Your task to perform on an android device: Empty the shopping cart on target.com. Search for usb-a to usb-b on target.com, select the first entry, add it to the cart, then select checkout. Image 0: 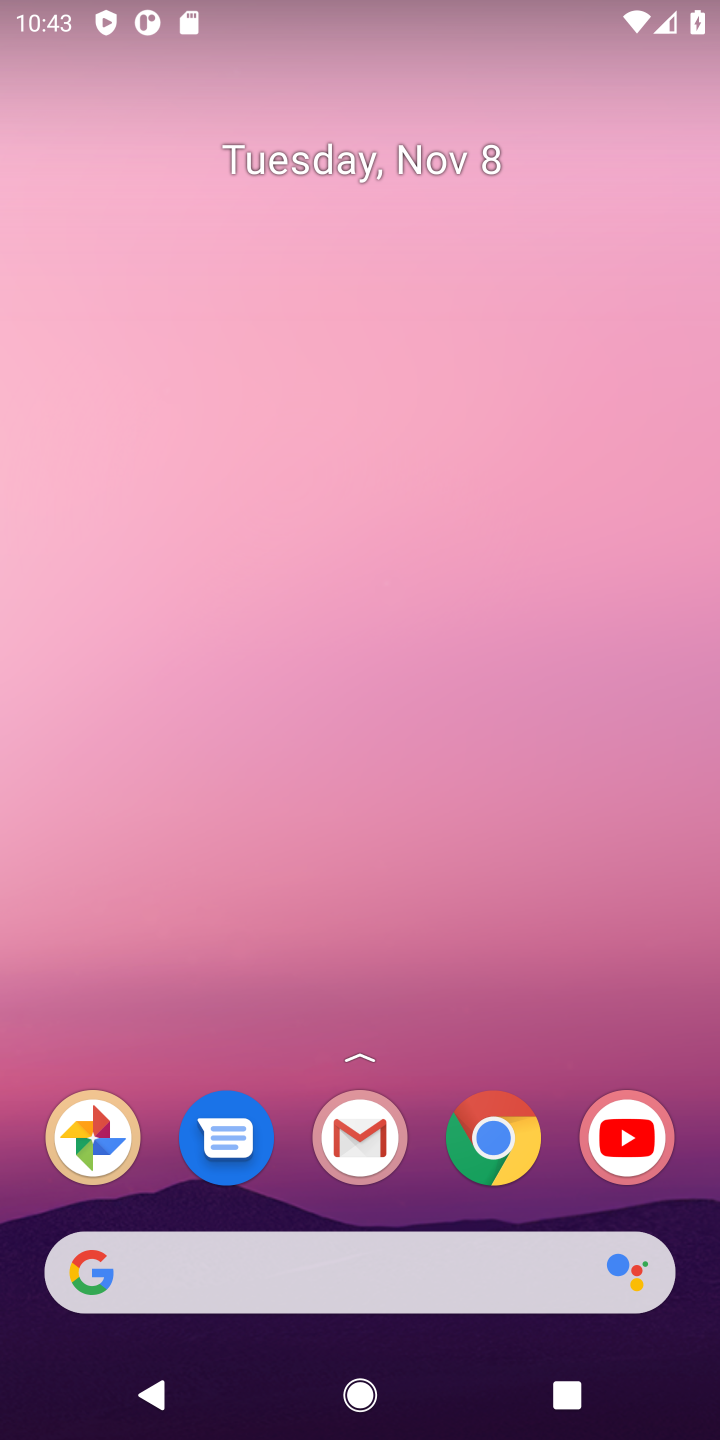
Step 0: press home button
Your task to perform on an android device: Empty the shopping cart on target.com. Search for usb-a to usb-b on target.com, select the first entry, add it to the cart, then select checkout. Image 1: 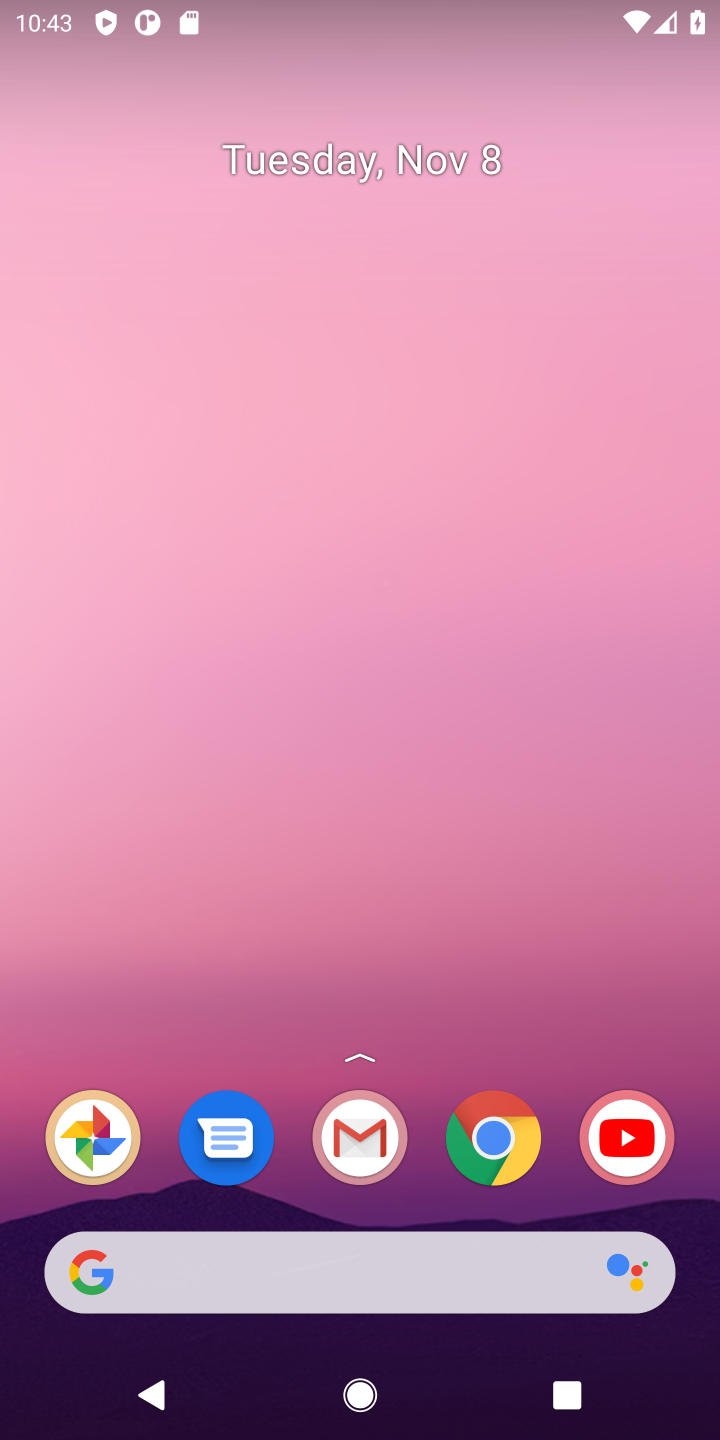
Step 1: click (496, 1141)
Your task to perform on an android device: Empty the shopping cart on target.com. Search for usb-a to usb-b on target.com, select the first entry, add it to the cart, then select checkout. Image 2: 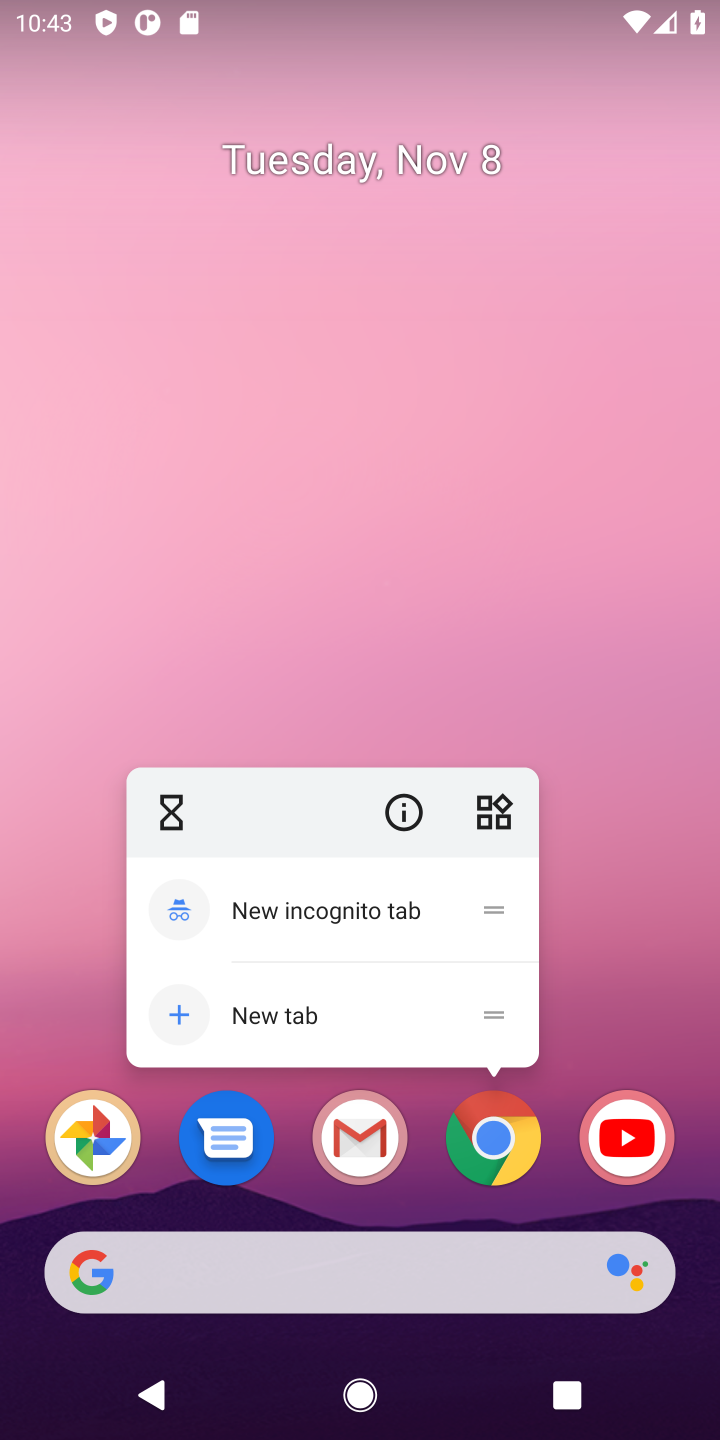
Step 2: click (496, 1141)
Your task to perform on an android device: Empty the shopping cart on target.com. Search for usb-a to usb-b on target.com, select the first entry, add it to the cart, then select checkout. Image 3: 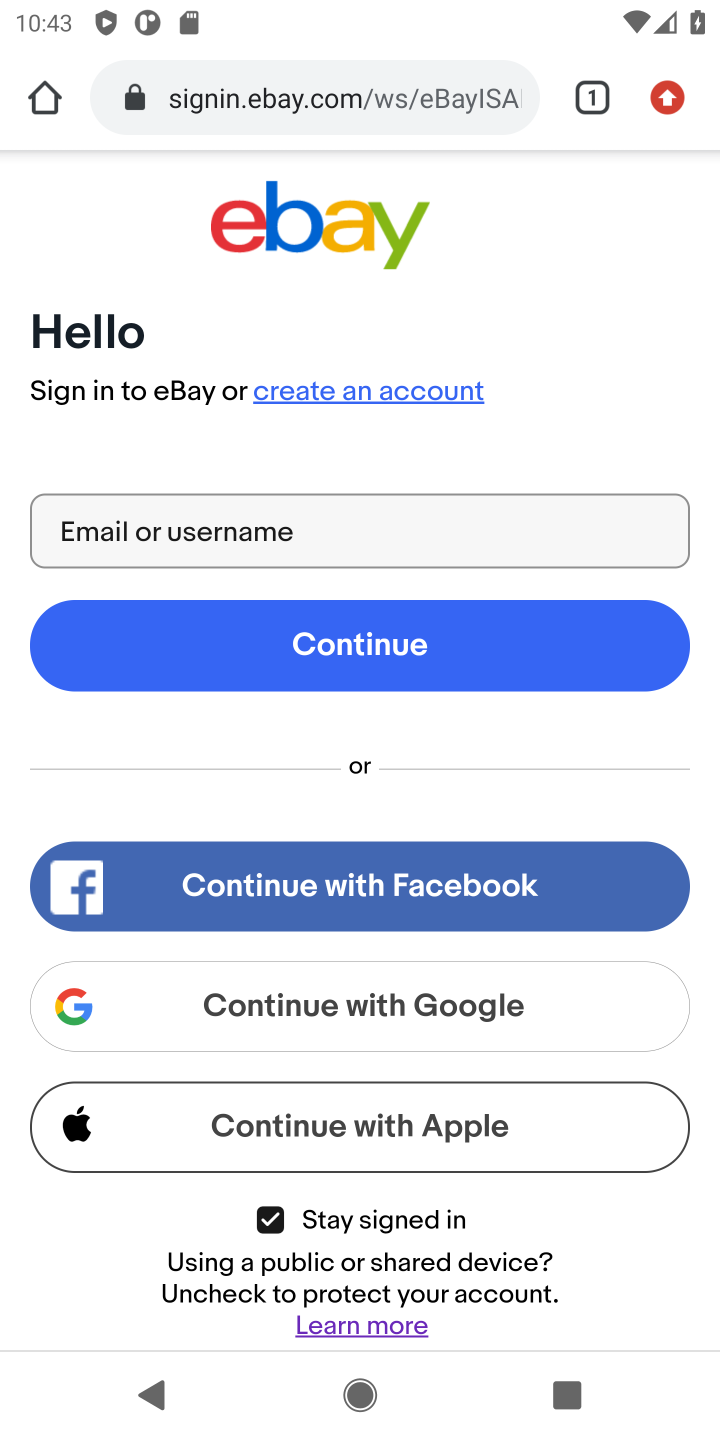
Step 3: click (407, 105)
Your task to perform on an android device: Empty the shopping cart on target.com. Search for usb-a to usb-b on target.com, select the first entry, add it to the cart, then select checkout. Image 4: 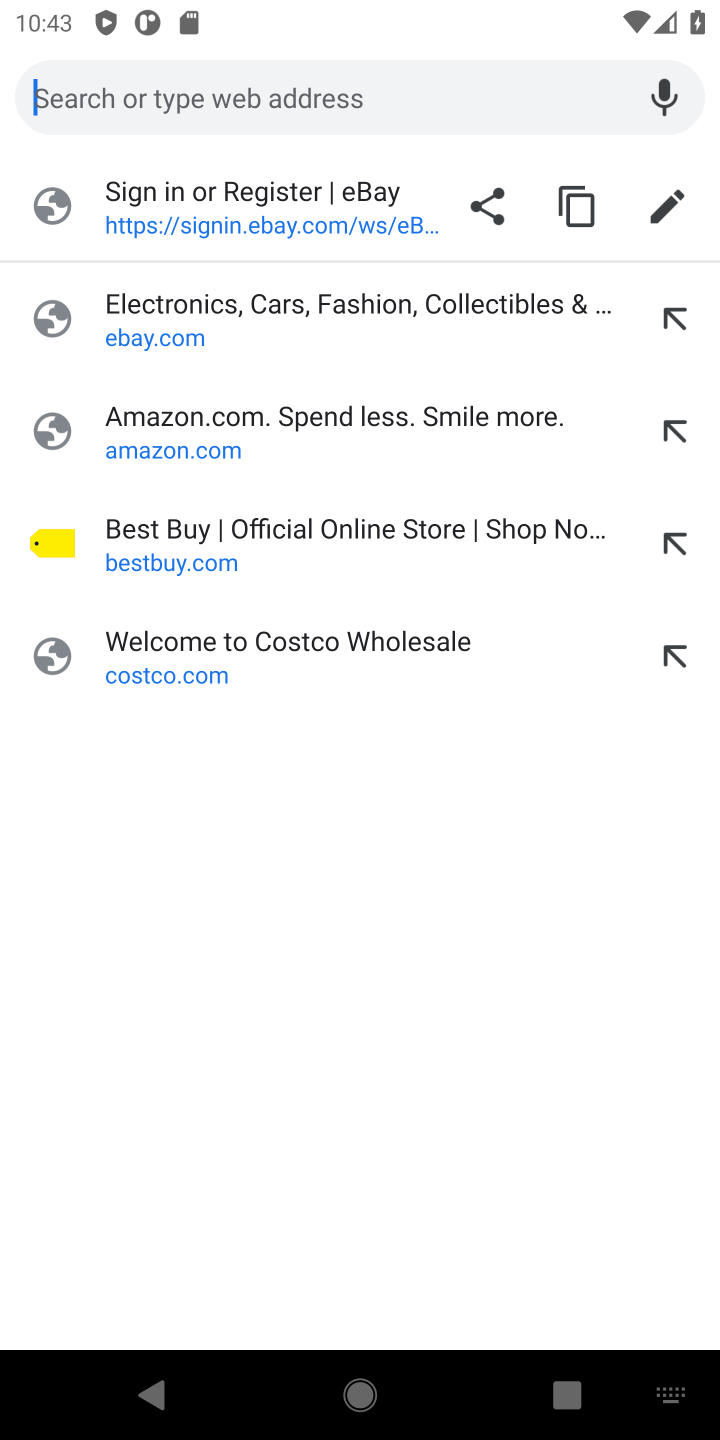
Step 4: type "target.com"
Your task to perform on an android device: Empty the shopping cart on target.com. Search for usb-a to usb-b on target.com, select the first entry, add it to the cart, then select checkout. Image 5: 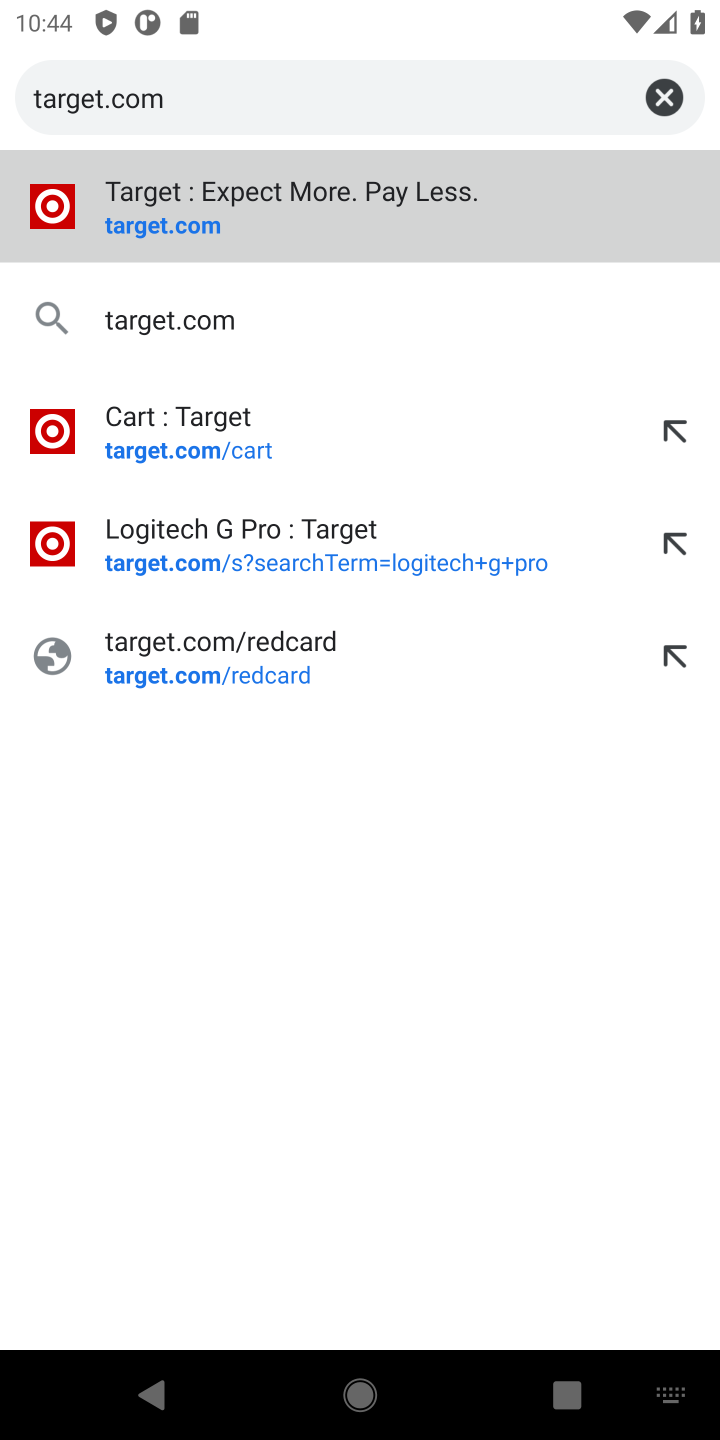
Step 5: press enter
Your task to perform on an android device: Empty the shopping cart on target.com. Search for usb-a to usb-b on target.com, select the first entry, add it to the cart, then select checkout. Image 6: 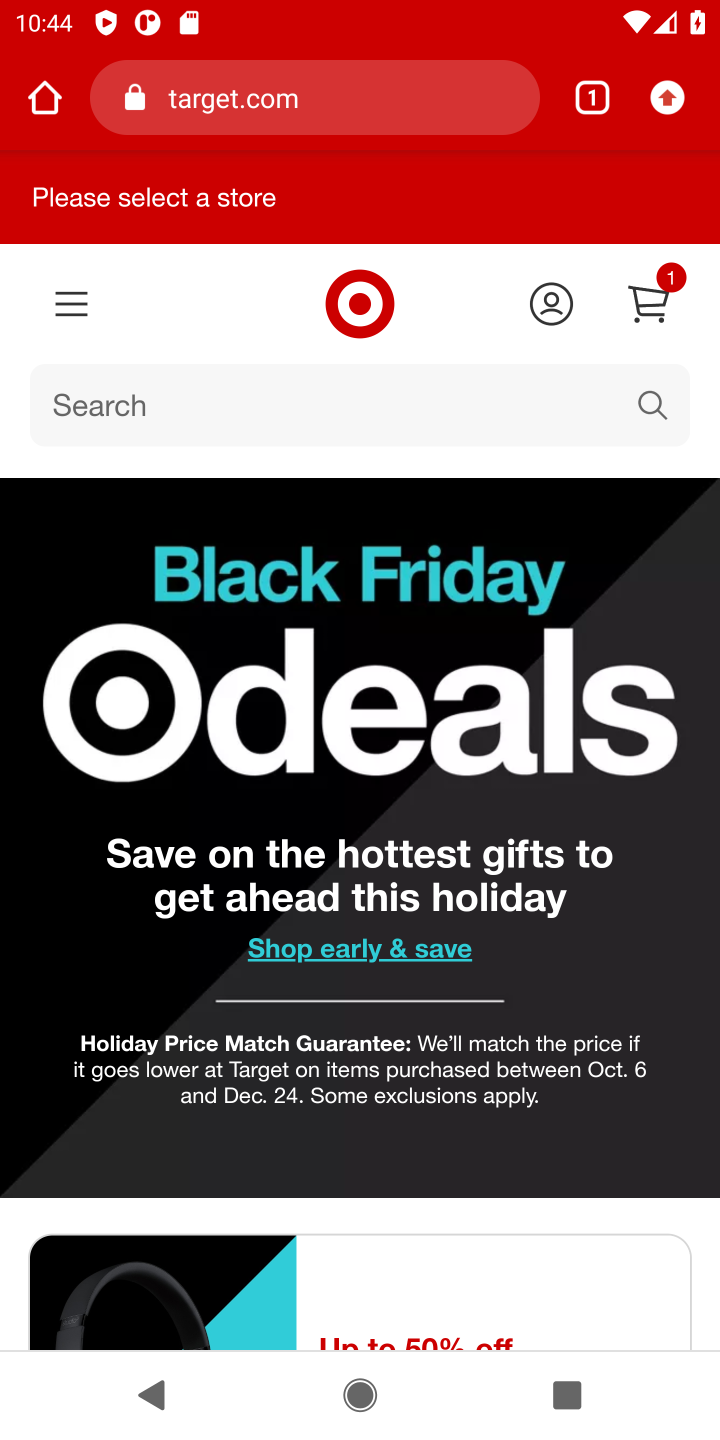
Step 6: click (657, 292)
Your task to perform on an android device: Empty the shopping cart on target.com. Search for usb-a to usb-b on target.com, select the first entry, add it to the cart, then select checkout. Image 7: 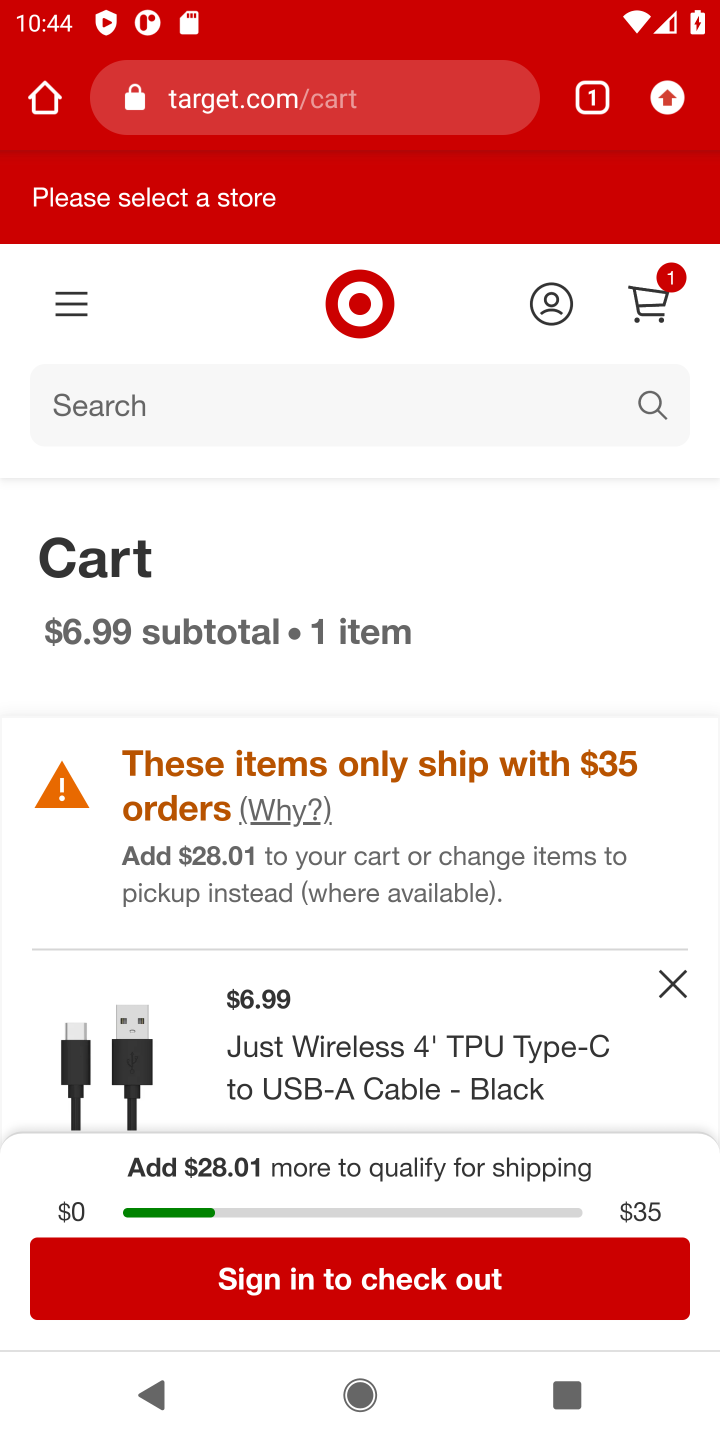
Step 7: drag from (325, 1076) to (485, 501)
Your task to perform on an android device: Empty the shopping cart on target.com. Search for usb-a to usb-b on target.com, select the first entry, add it to the cart, then select checkout. Image 8: 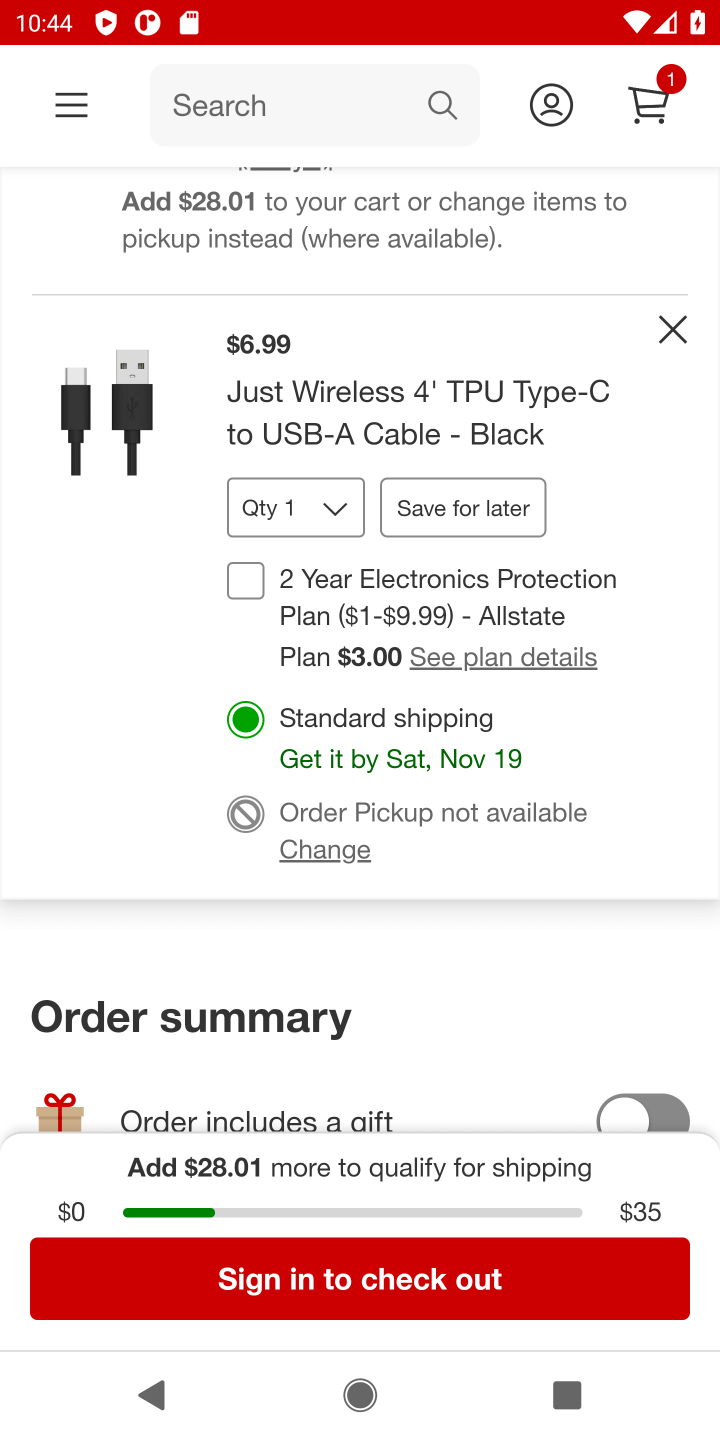
Step 8: click (671, 408)
Your task to perform on an android device: Empty the shopping cart on target.com. Search for usb-a to usb-b on target.com, select the first entry, add it to the cart, then select checkout. Image 9: 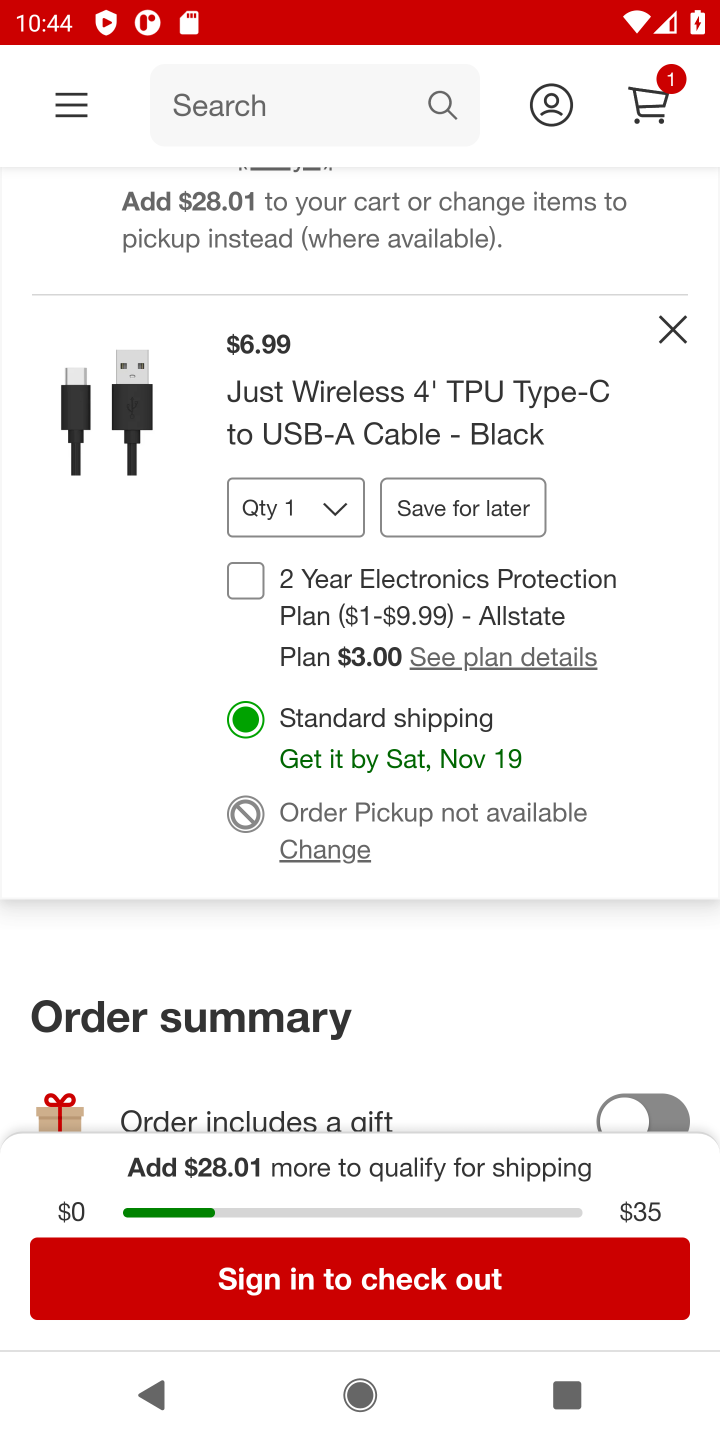
Step 9: click (667, 314)
Your task to perform on an android device: Empty the shopping cart on target.com. Search for usb-a to usb-b on target.com, select the first entry, add it to the cart, then select checkout. Image 10: 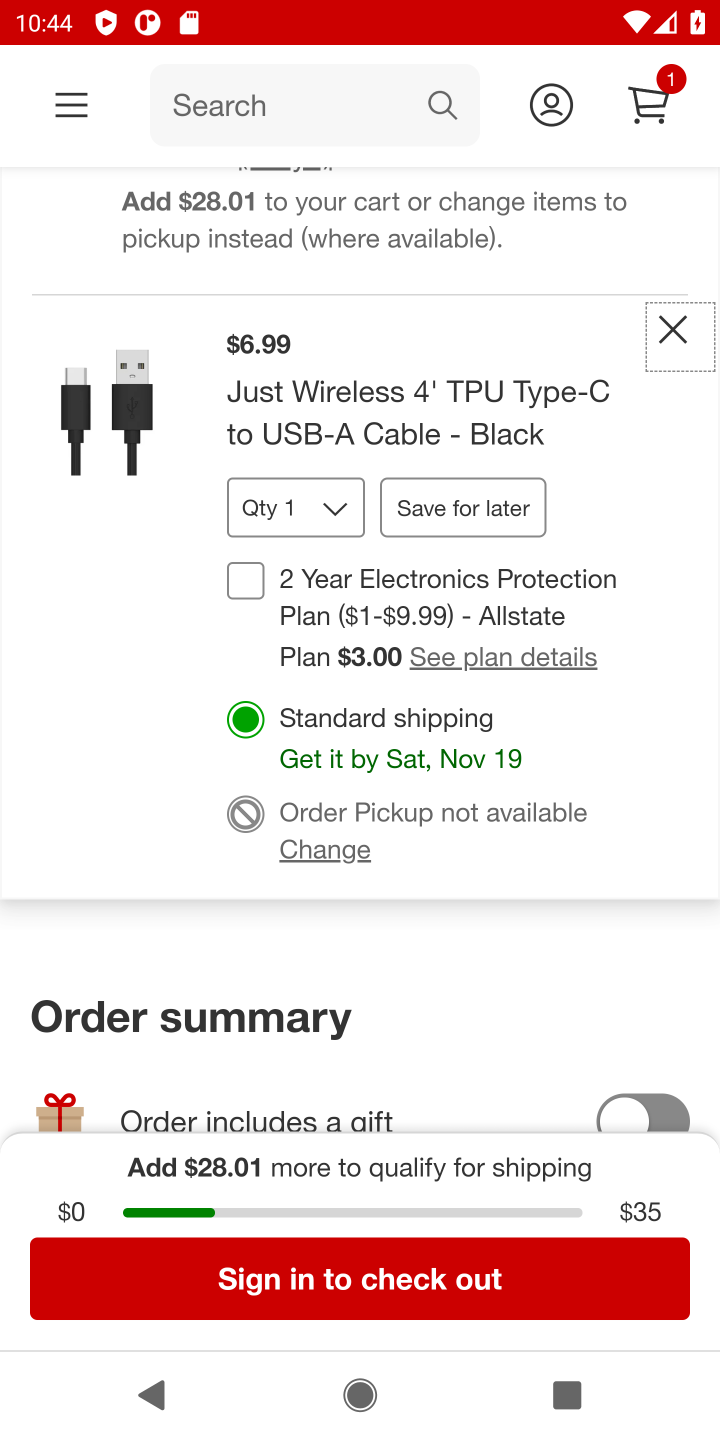
Step 10: click (669, 325)
Your task to perform on an android device: Empty the shopping cart on target.com. Search for usb-a to usb-b on target.com, select the first entry, add it to the cart, then select checkout. Image 11: 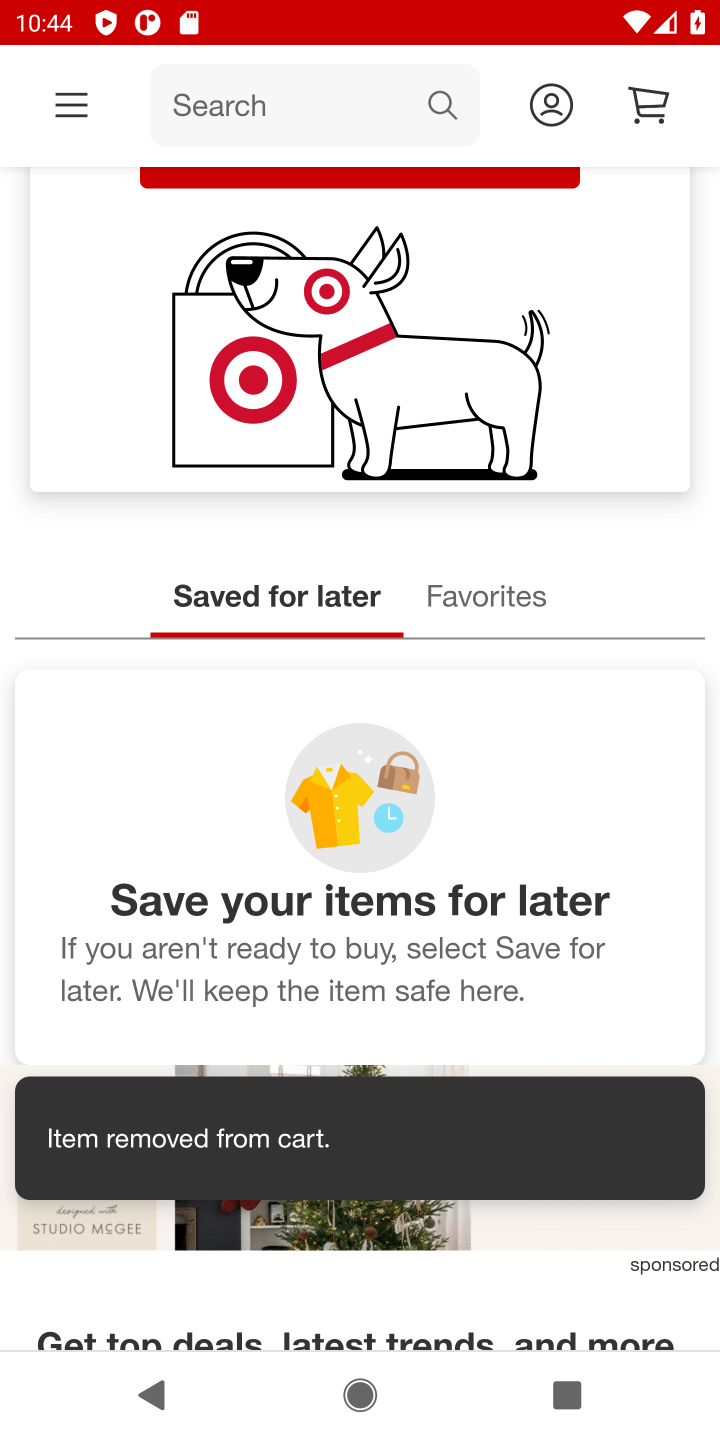
Step 11: drag from (647, 285) to (533, 1140)
Your task to perform on an android device: Empty the shopping cart on target.com. Search for usb-a to usb-b on target.com, select the first entry, add it to the cart, then select checkout. Image 12: 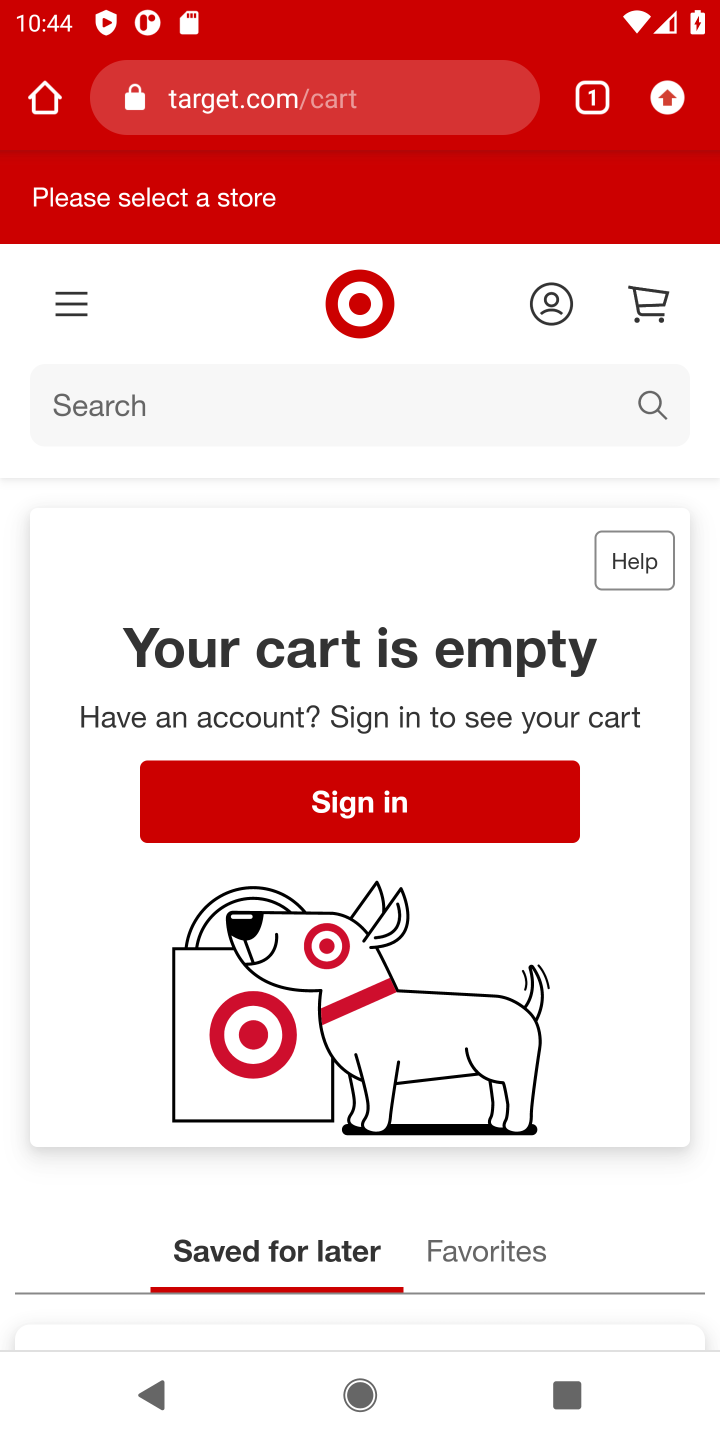
Step 12: click (172, 407)
Your task to perform on an android device: Empty the shopping cart on target.com. Search for usb-a to usb-b on target.com, select the first entry, add it to the cart, then select checkout. Image 13: 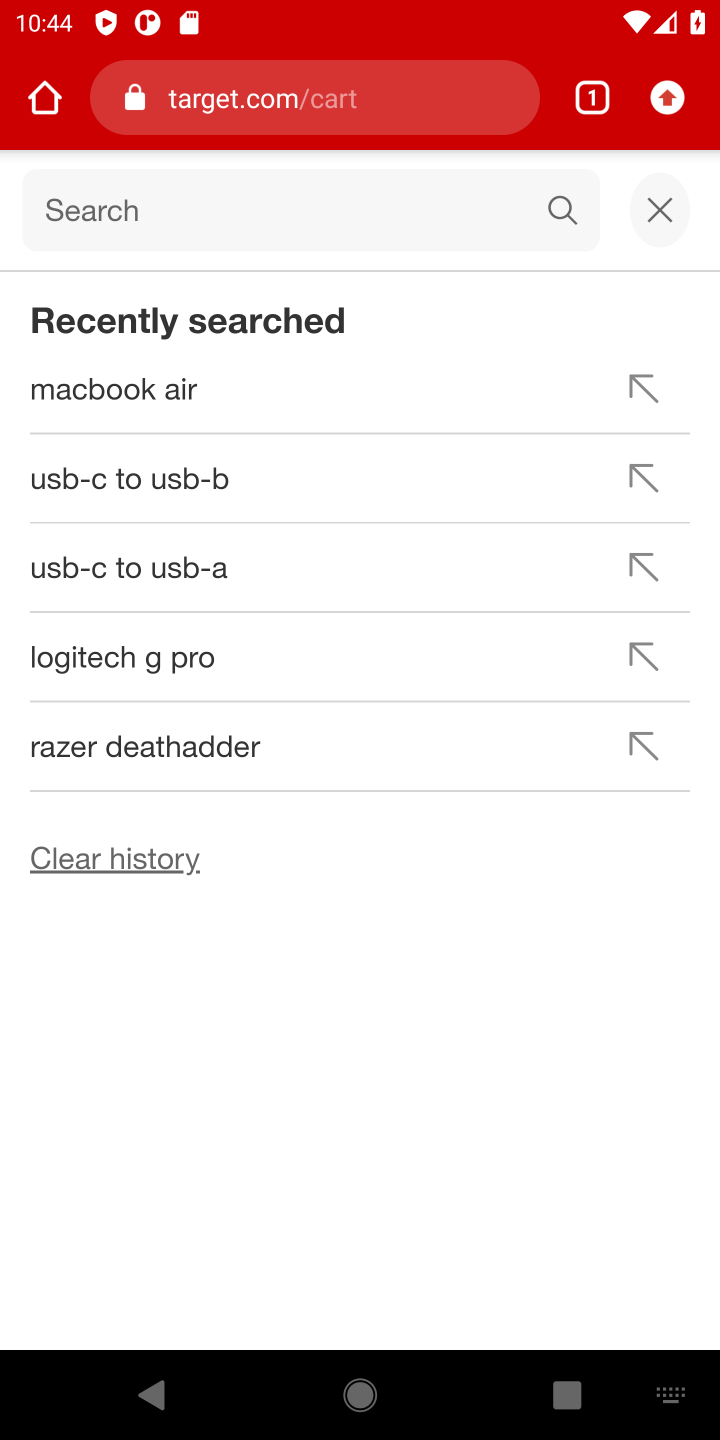
Step 13: click (210, 212)
Your task to perform on an android device: Empty the shopping cart on target.com. Search for usb-a to usb-b on target.com, select the first entry, add it to the cart, then select checkout. Image 14: 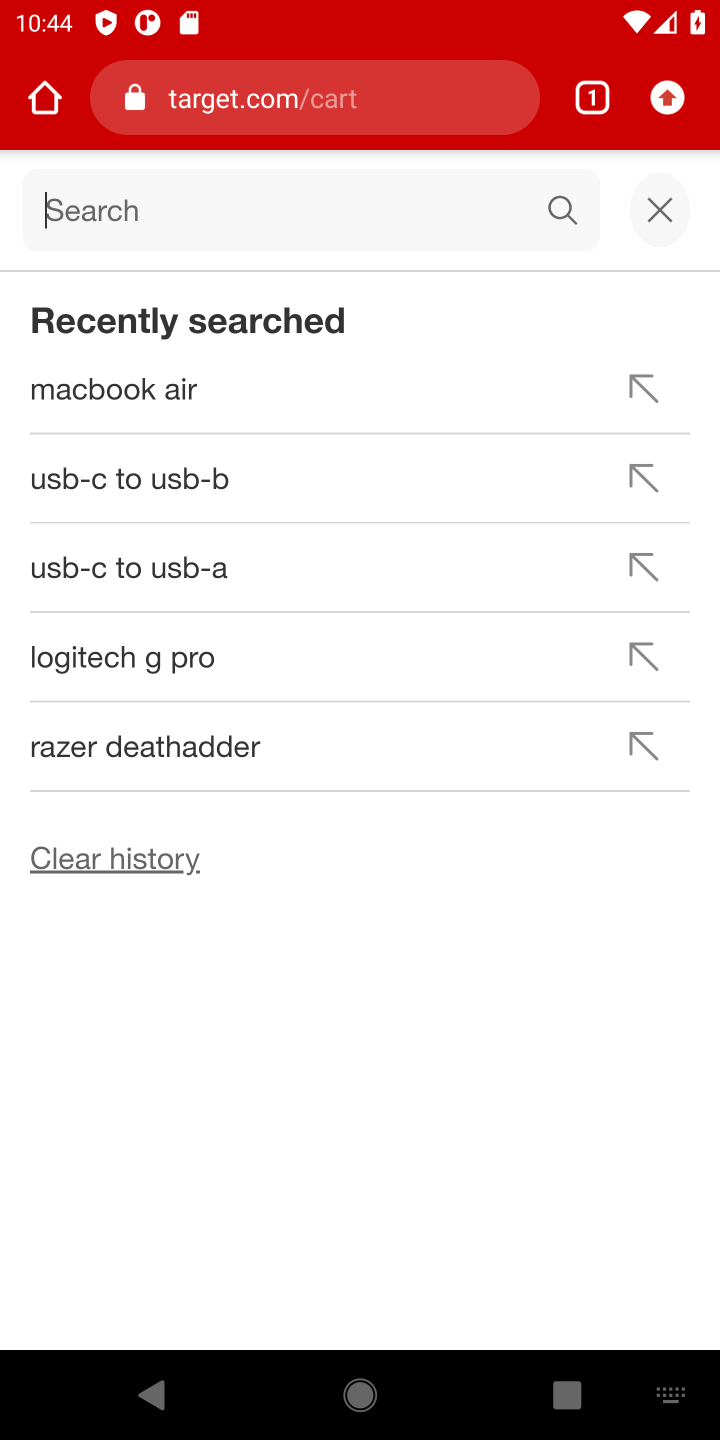
Step 14: type "usb-a to usb-b"
Your task to perform on an android device: Empty the shopping cart on target.com. Search for usb-a to usb-b on target.com, select the first entry, add it to the cart, then select checkout. Image 15: 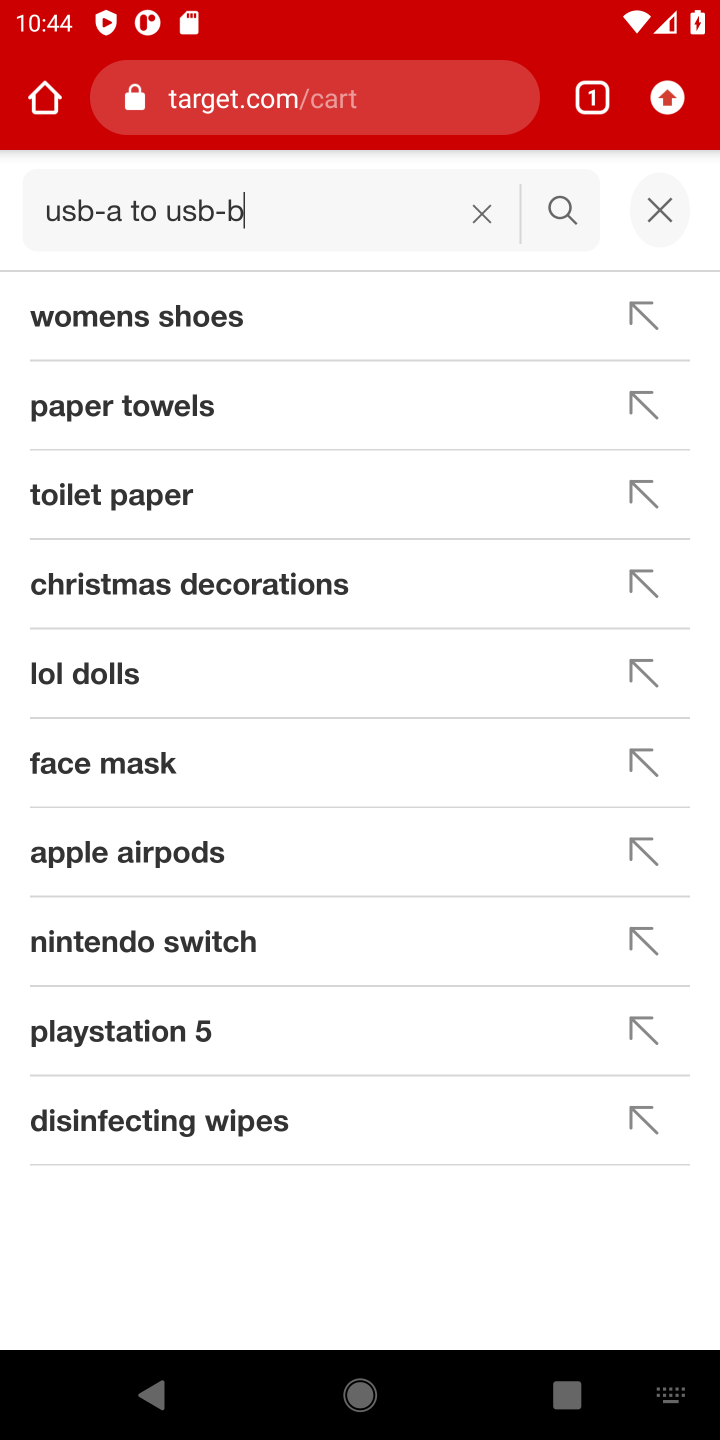
Step 15: press enter
Your task to perform on an android device: Empty the shopping cart on target.com. Search for usb-a to usb-b on target.com, select the first entry, add it to the cart, then select checkout. Image 16: 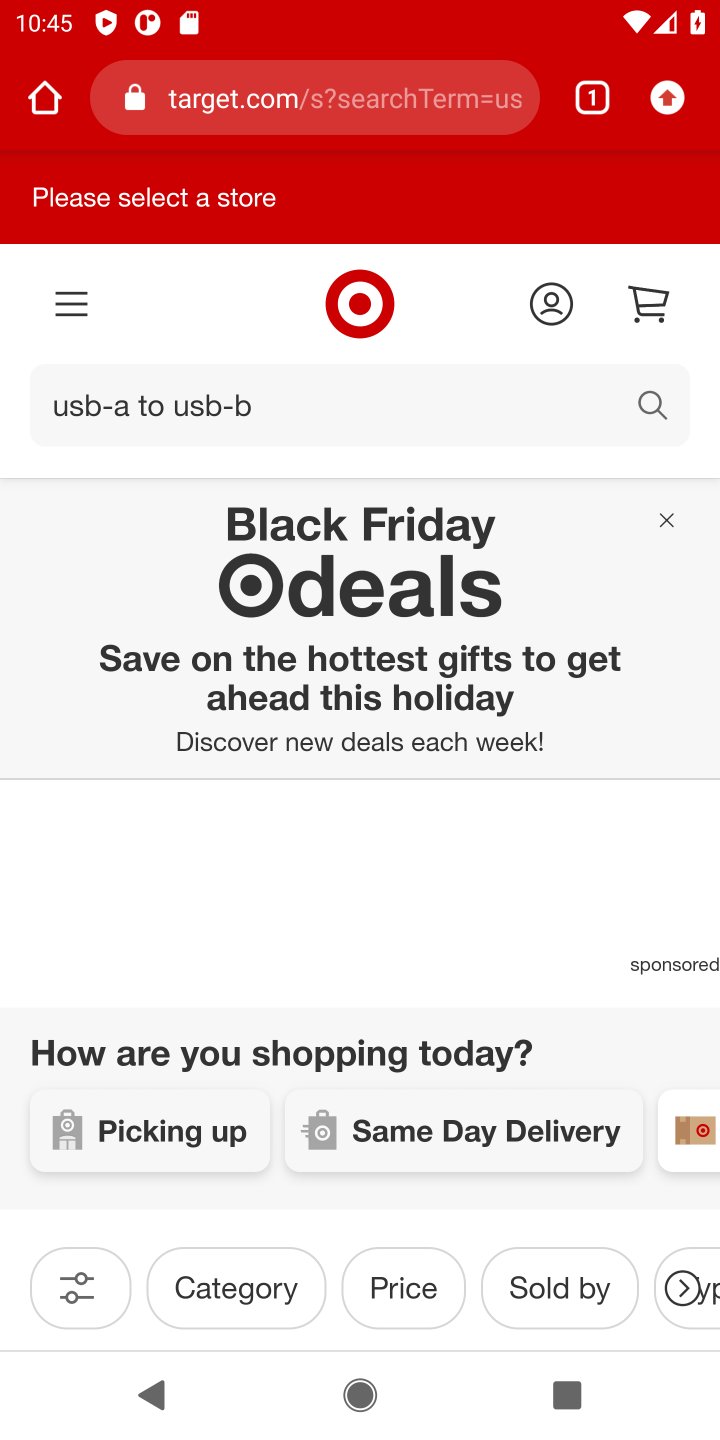
Step 16: drag from (335, 1133) to (532, 461)
Your task to perform on an android device: Empty the shopping cart on target.com. Search for usb-a to usb-b on target.com, select the first entry, add it to the cart, then select checkout. Image 17: 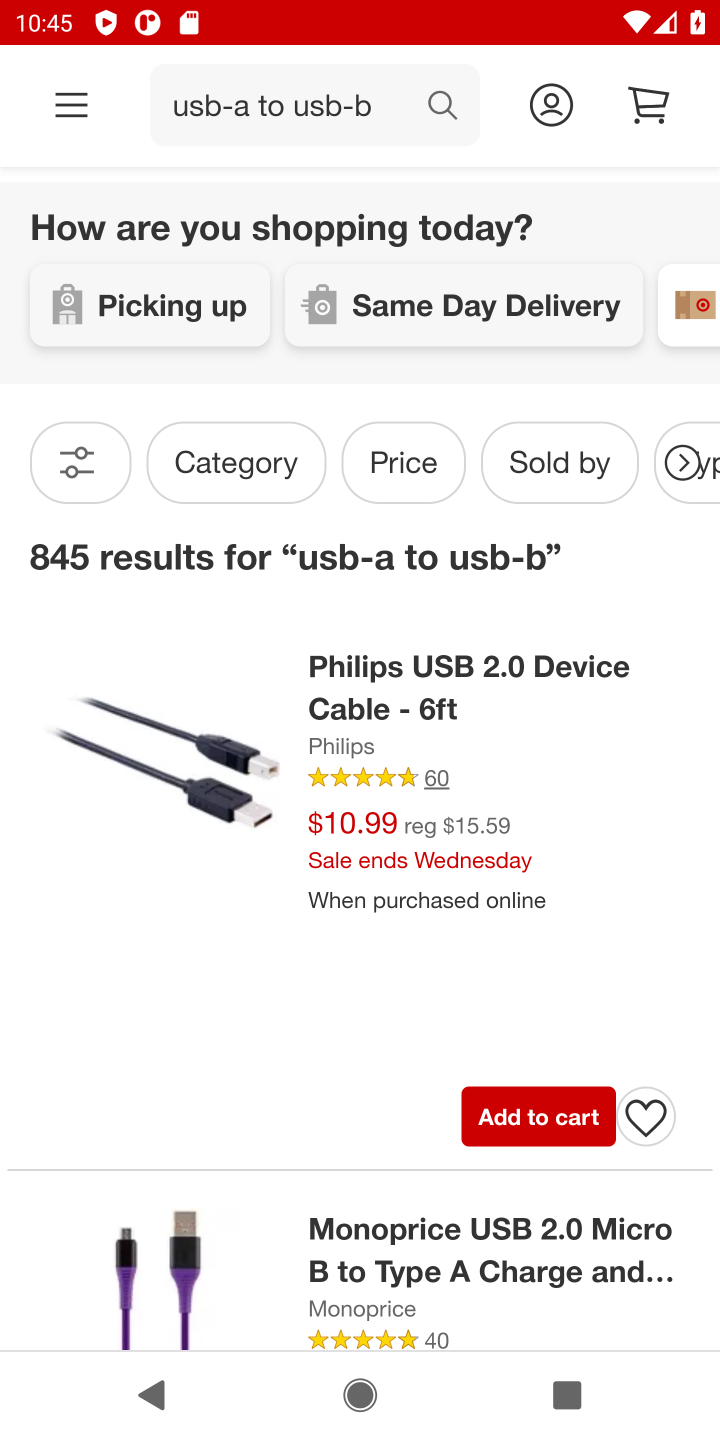
Step 17: drag from (437, 1282) to (575, 811)
Your task to perform on an android device: Empty the shopping cart on target.com. Search for usb-a to usb-b on target.com, select the first entry, add it to the cart, then select checkout. Image 18: 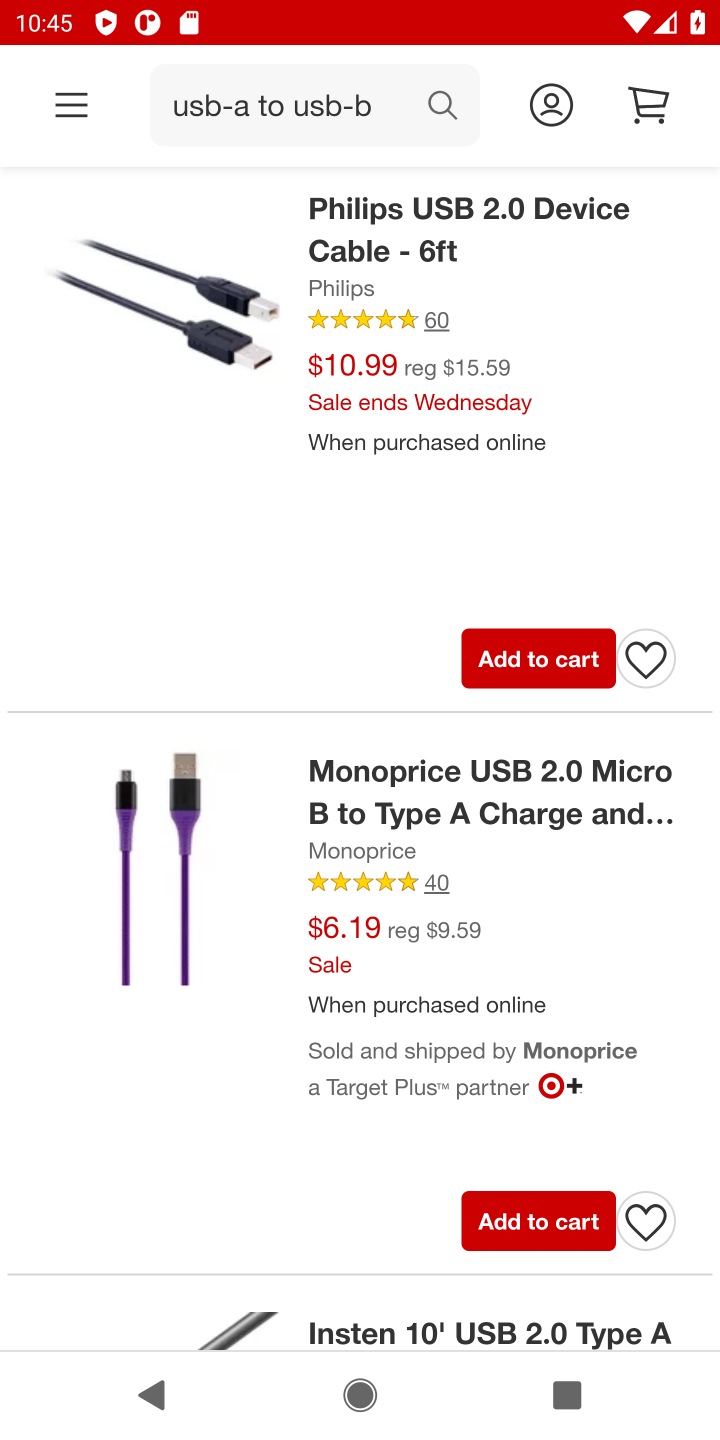
Step 18: drag from (405, 1269) to (495, 662)
Your task to perform on an android device: Empty the shopping cart on target.com. Search for usb-a to usb-b on target.com, select the first entry, add it to the cart, then select checkout. Image 19: 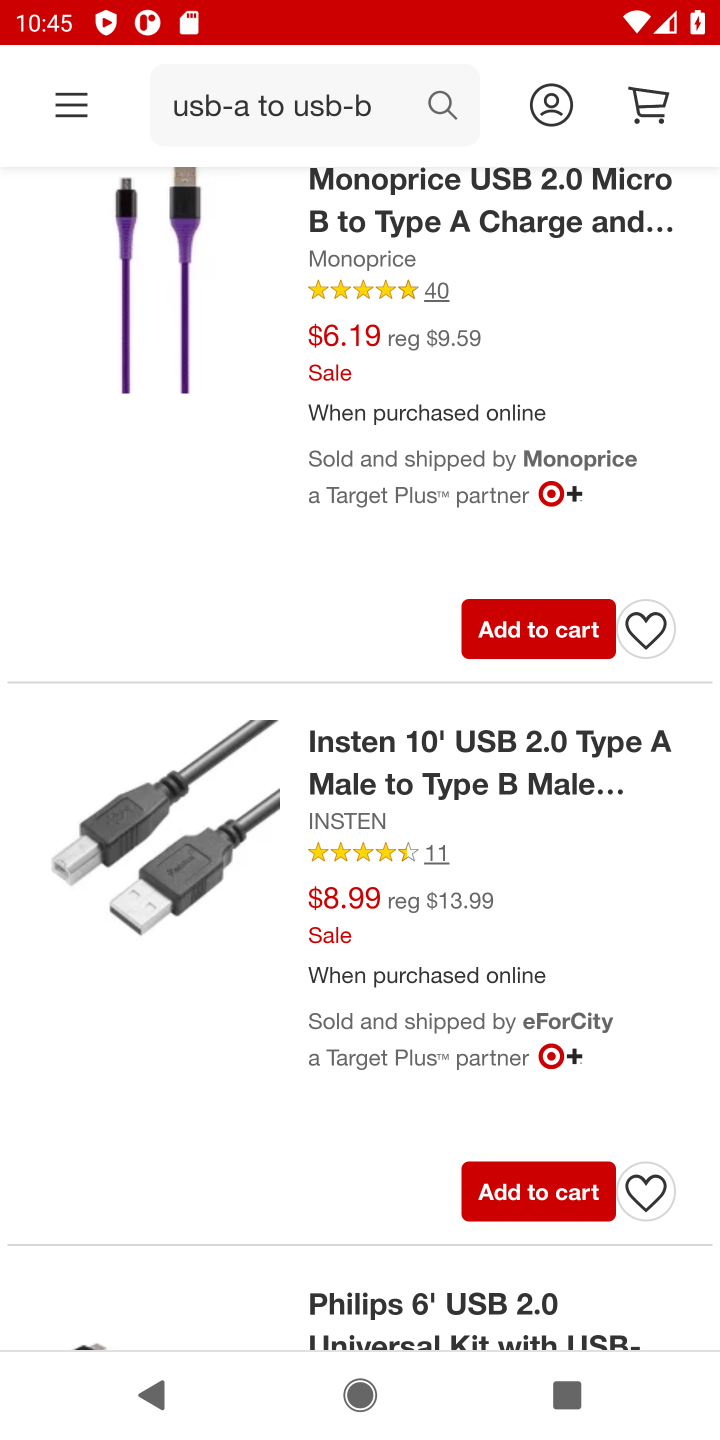
Step 19: drag from (208, 1272) to (634, 353)
Your task to perform on an android device: Empty the shopping cart on target.com. Search for usb-a to usb-b on target.com, select the first entry, add it to the cart, then select checkout. Image 20: 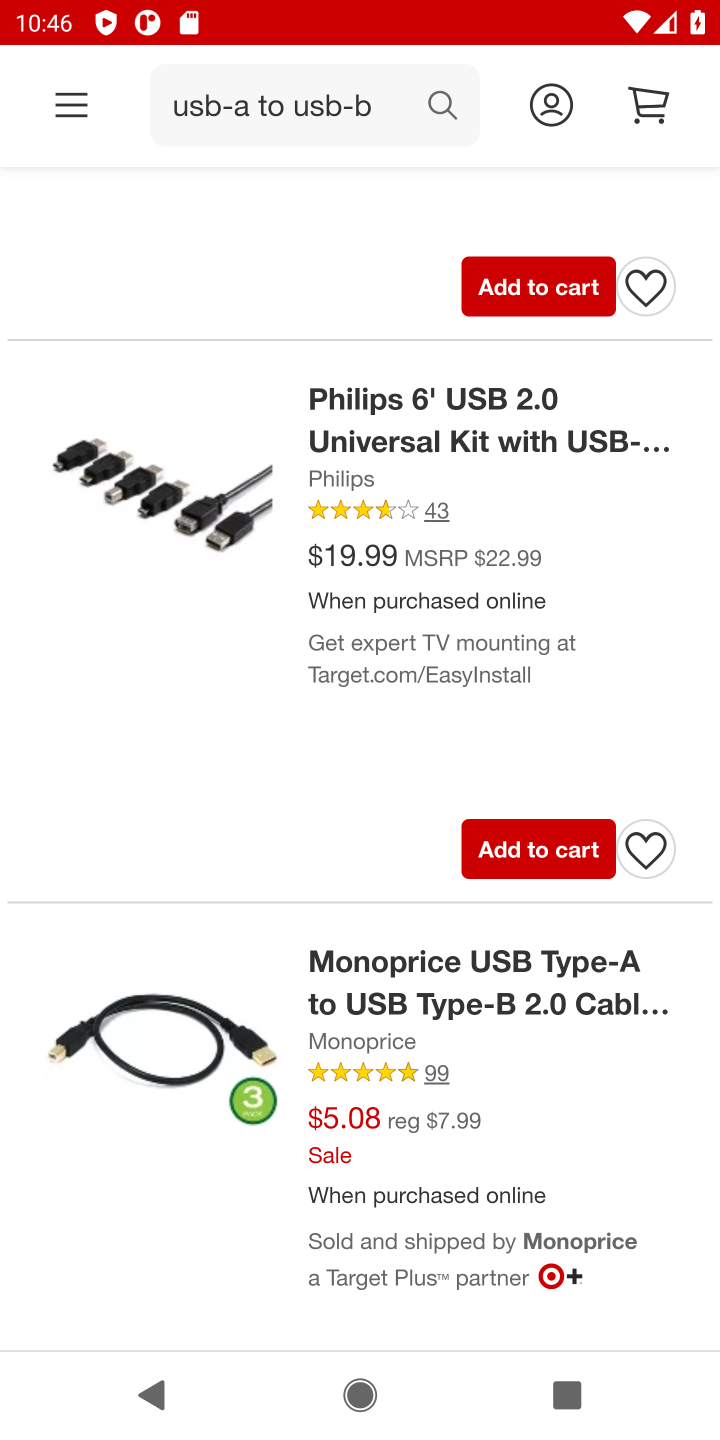
Step 20: click (502, 1114)
Your task to perform on an android device: Empty the shopping cart on target.com. Search for usb-a to usb-b on target.com, select the first entry, add it to the cart, then select checkout. Image 21: 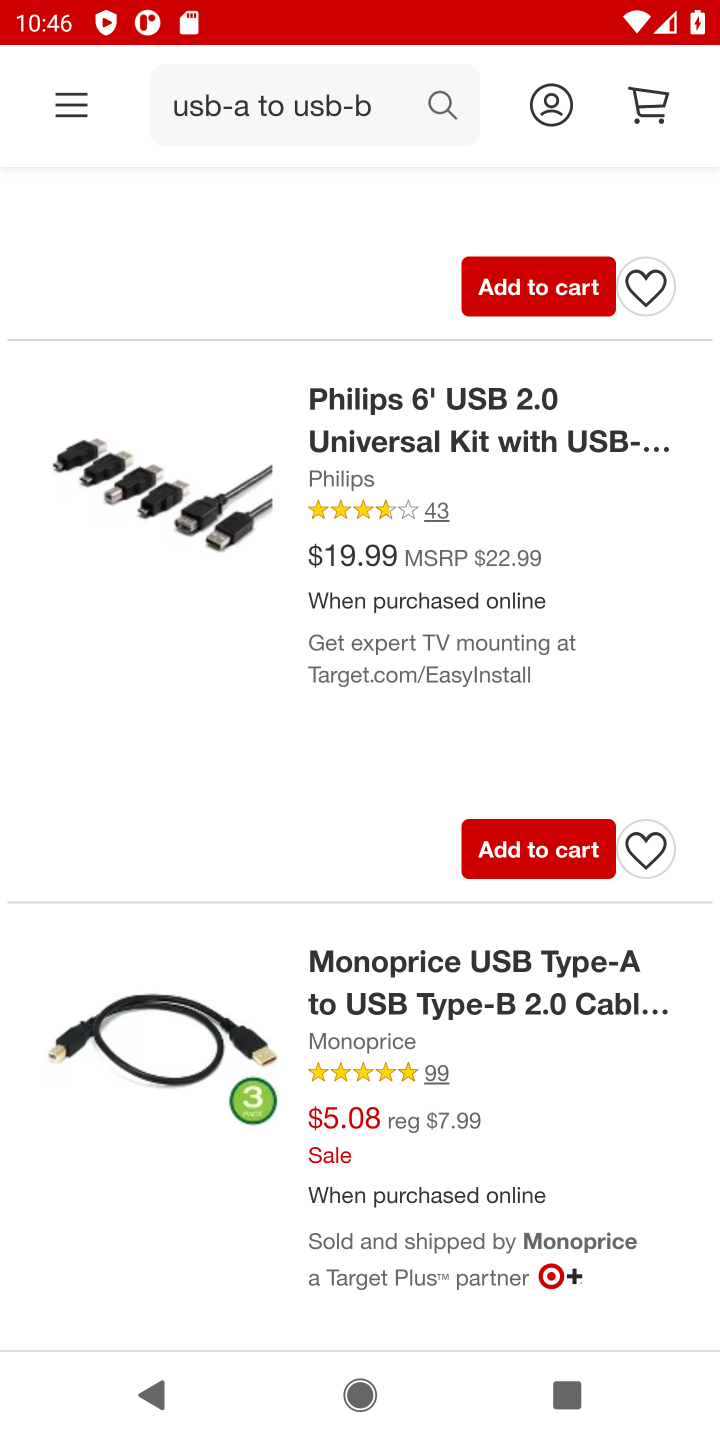
Step 21: click (437, 1009)
Your task to perform on an android device: Empty the shopping cart on target.com. Search for usb-a to usb-b on target.com, select the first entry, add it to the cart, then select checkout. Image 22: 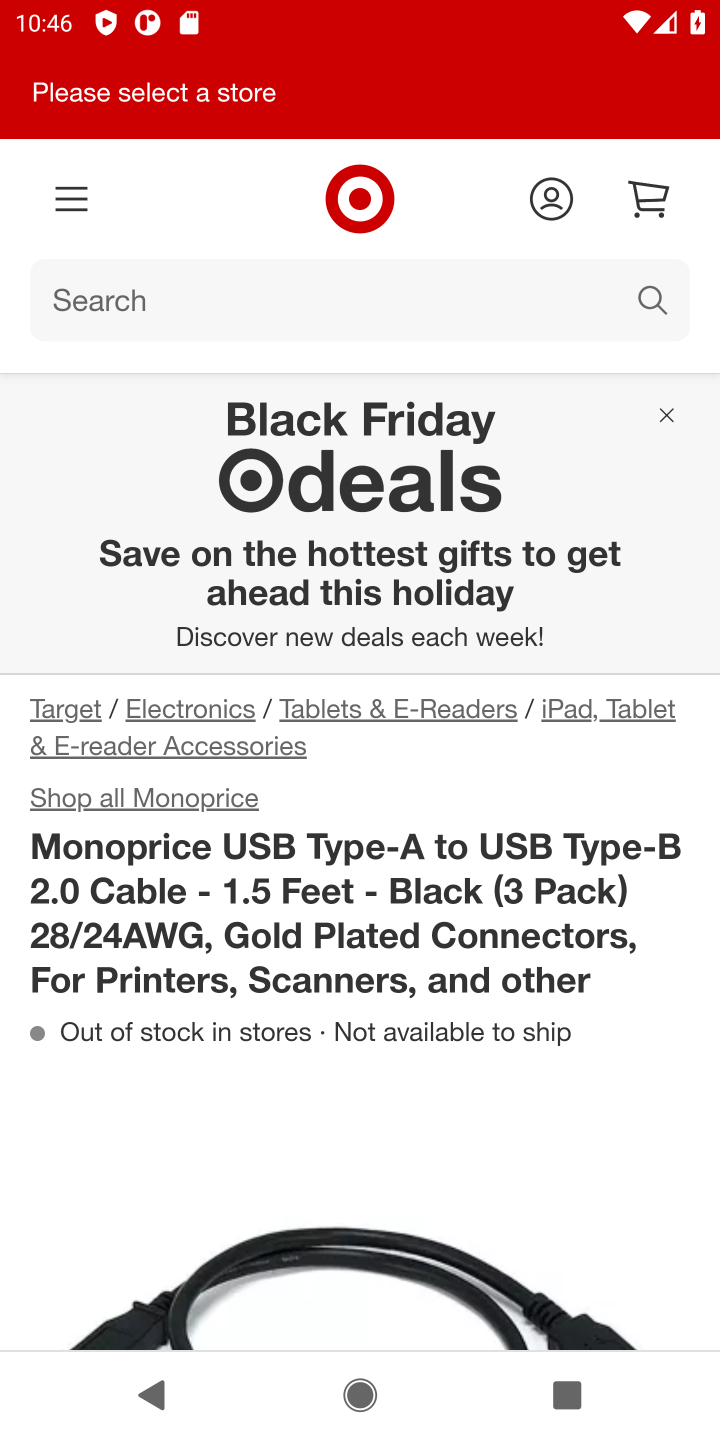
Step 22: task complete